Your task to perform on an android device: What's the weather? Image 0: 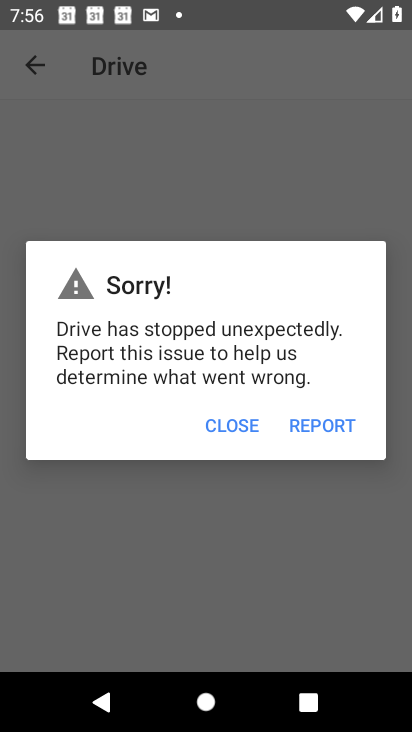
Step 0: press home button
Your task to perform on an android device: What's the weather? Image 1: 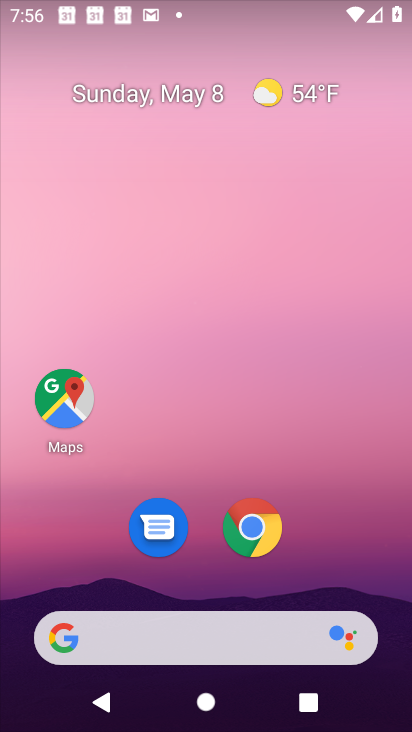
Step 1: drag from (344, 560) to (248, 167)
Your task to perform on an android device: What's the weather? Image 2: 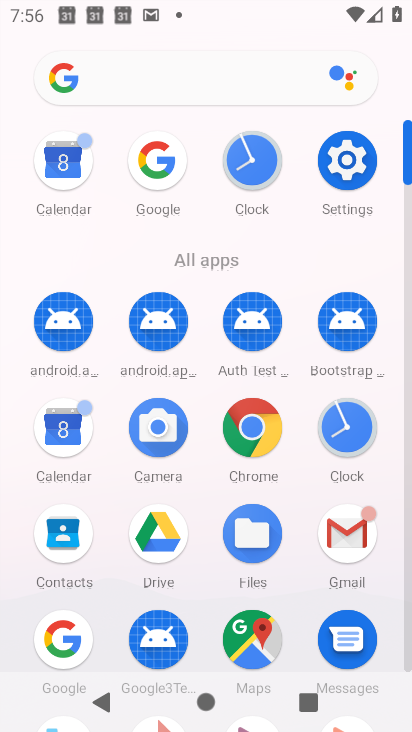
Step 2: click (185, 76)
Your task to perform on an android device: What's the weather? Image 3: 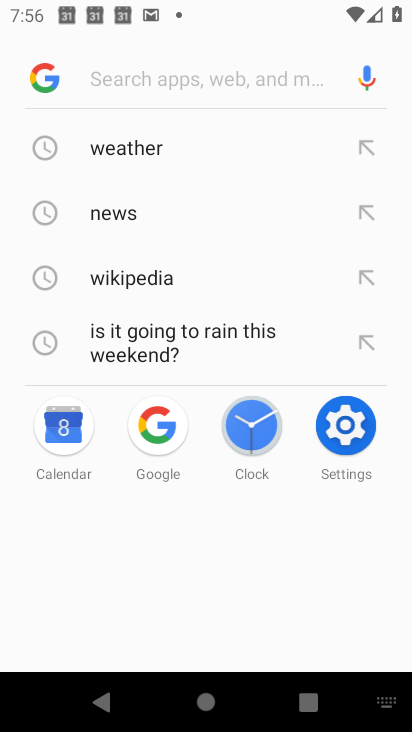
Step 3: type "what's the weather"
Your task to perform on an android device: What's the weather? Image 4: 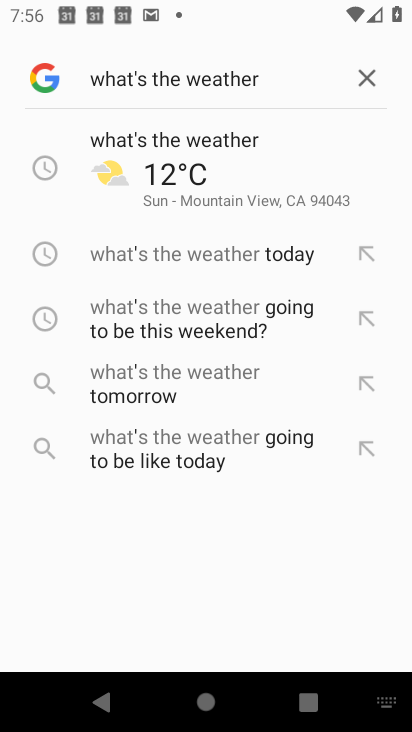
Step 4: click (235, 176)
Your task to perform on an android device: What's the weather? Image 5: 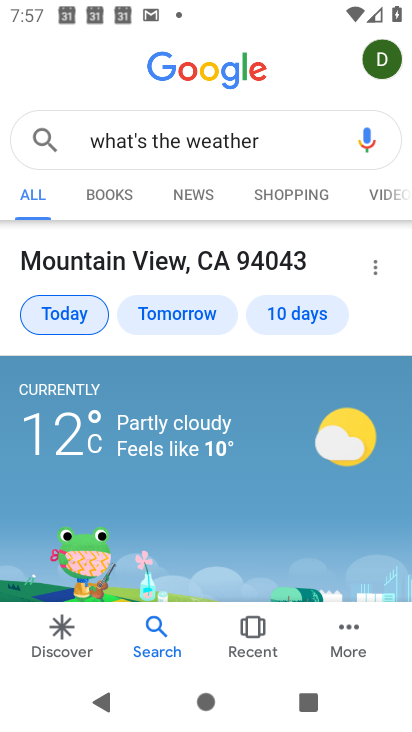
Step 5: task complete